Your task to perform on an android device: Open my contact list Image 0: 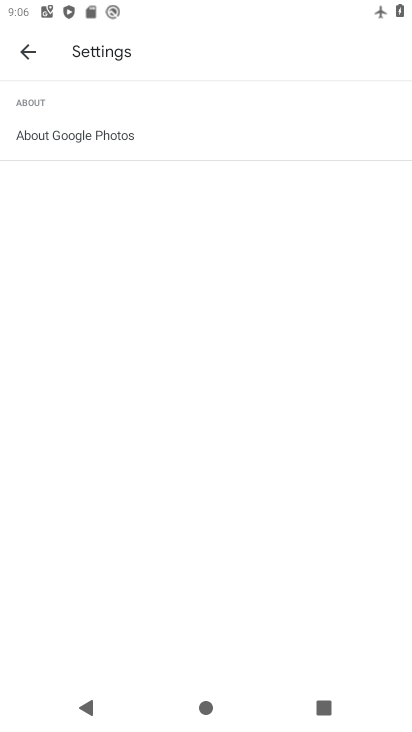
Step 0: press home button
Your task to perform on an android device: Open my contact list Image 1: 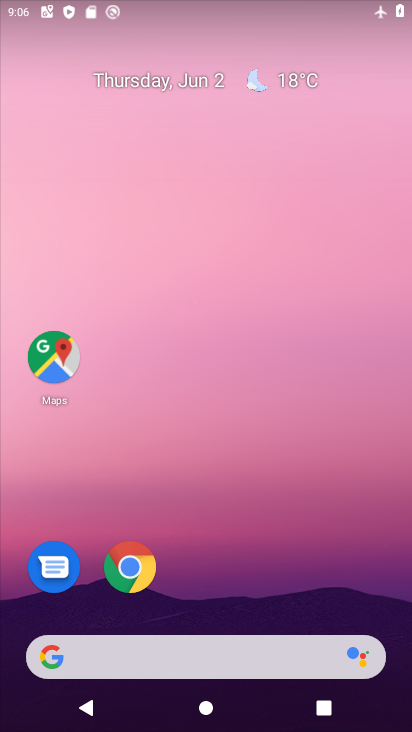
Step 1: click (205, 587)
Your task to perform on an android device: Open my contact list Image 2: 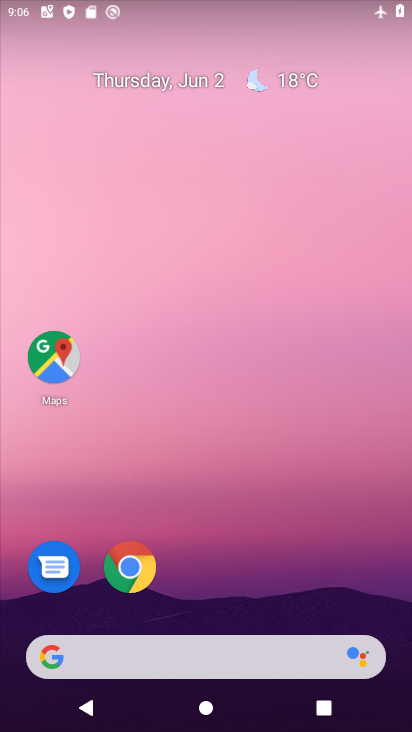
Step 2: click (242, 140)
Your task to perform on an android device: Open my contact list Image 3: 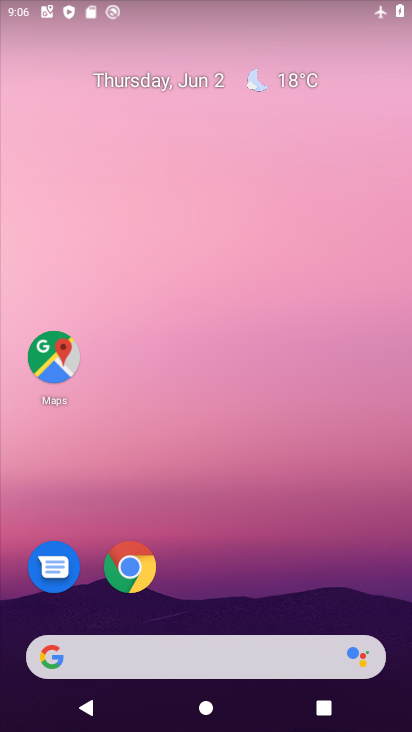
Step 3: drag from (215, 622) to (258, 106)
Your task to perform on an android device: Open my contact list Image 4: 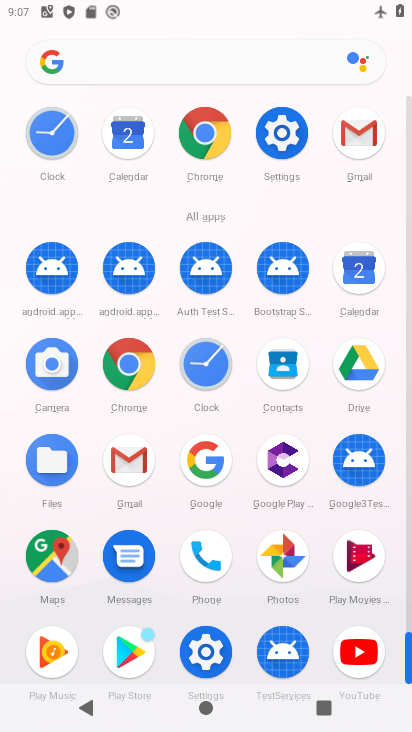
Step 4: click (277, 363)
Your task to perform on an android device: Open my contact list Image 5: 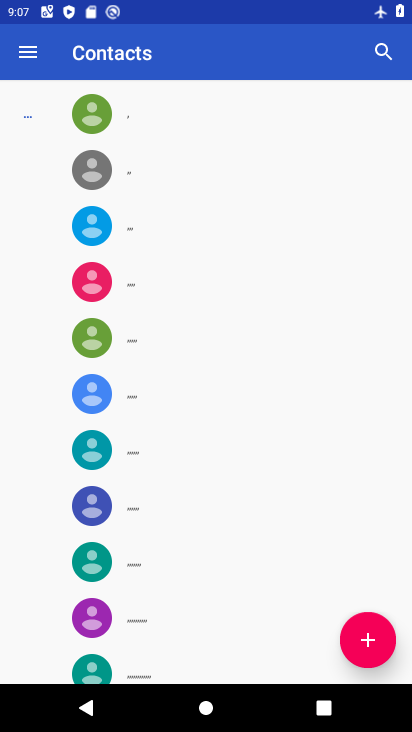
Step 5: task complete